Your task to perform on an android device: What's on my calendar tomorrow? Image 0: 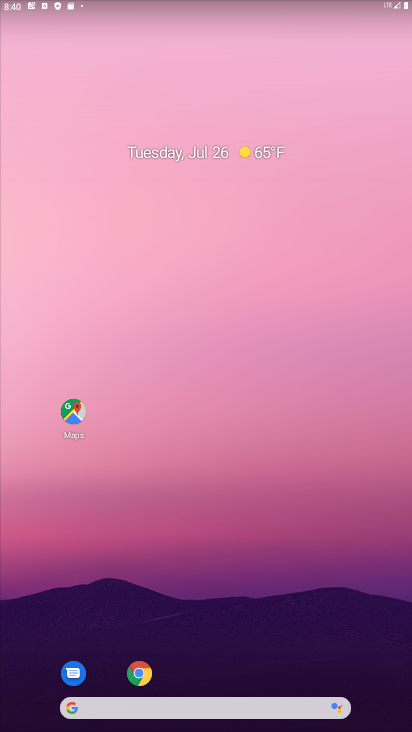
Step 0: drag from (226, 670) to (192, 218)
Your task to perform on an android device: What's on my calendar tomorrow? Image 1: 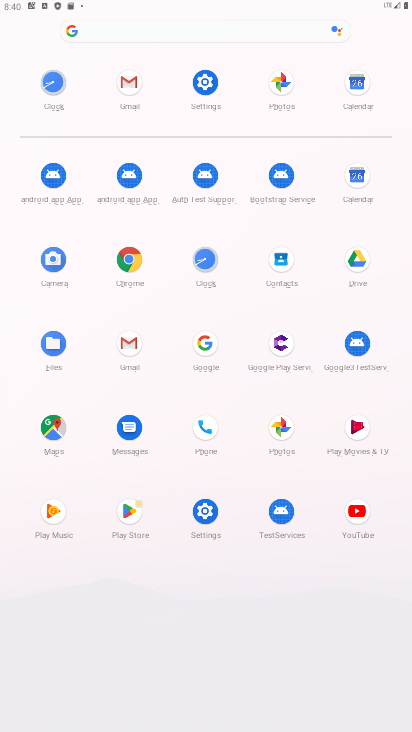
Step 1: click (355, 166)
Your task to perform on an android device: What's on my calendar tomorrow? Image 2: 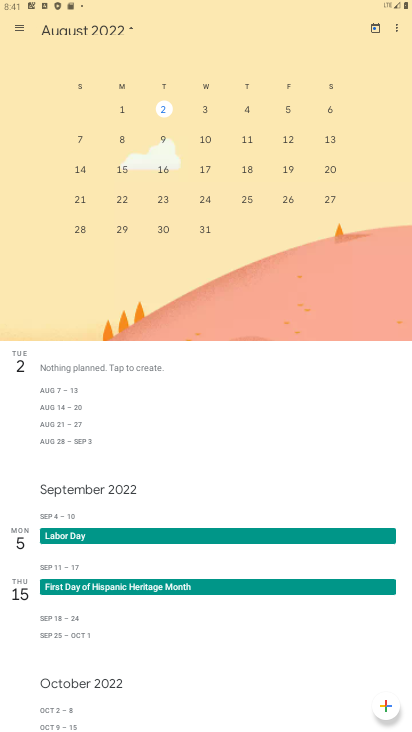
Step 2: drag from (59, 117) to (402, 143)
Your task to perform on an android device: What's on my calendar tomorrow? Image 3: 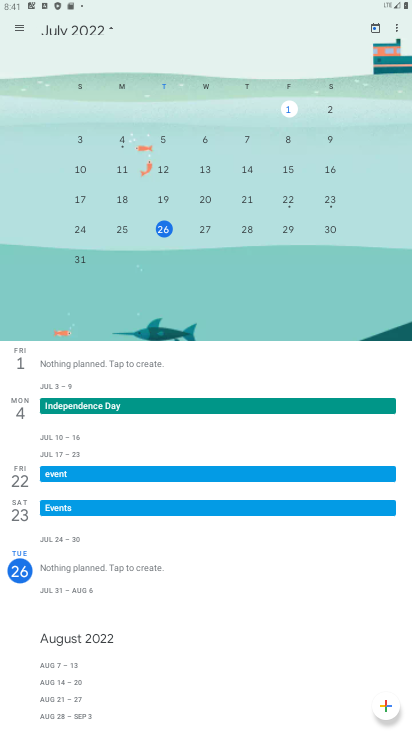
Step 3: click (124, 224)
Your task to perform on an android device: What's on my calendar tomorrow? Image 4: 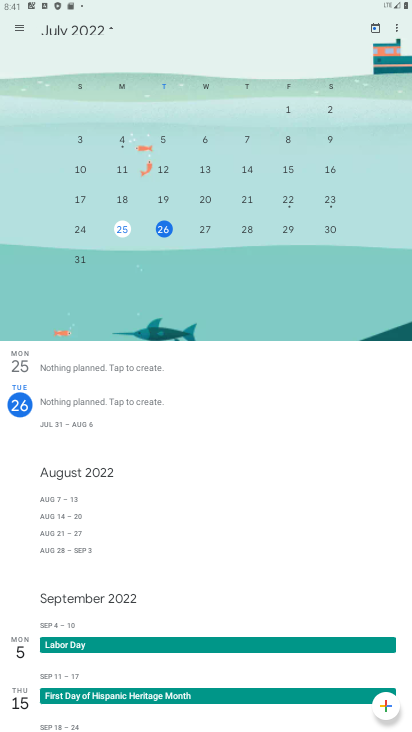
Step 4: click (175, 227)
Your task to perform on an android device: What's on my calendar tomorrow? Image 5: 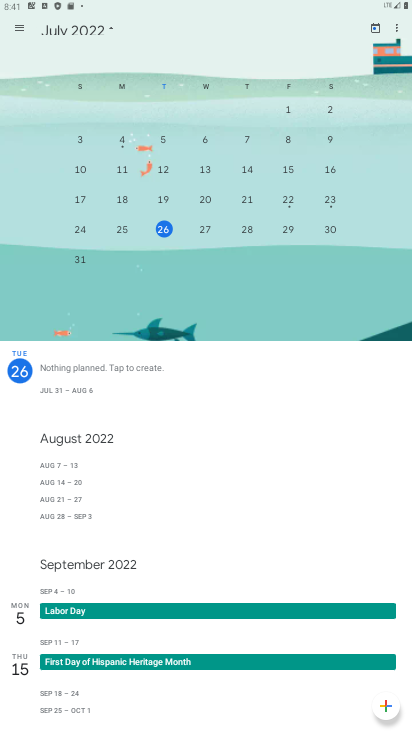
Step 5: click (218, 227)
Your task to perform on an android device: What's on my calendar tomorrow? Image 6: 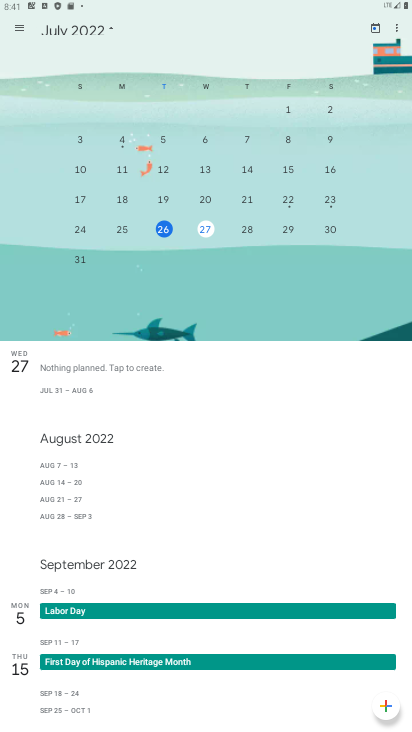
Step 6: task complete